Your task to perform on an android device: Go to Wikipedia Image 0: 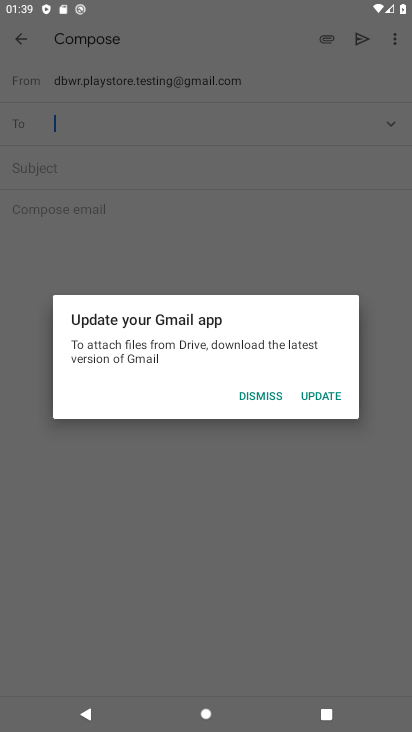
Step 0: press home button
Your task to perform on an android device: Go to Wikipedia Image 1: 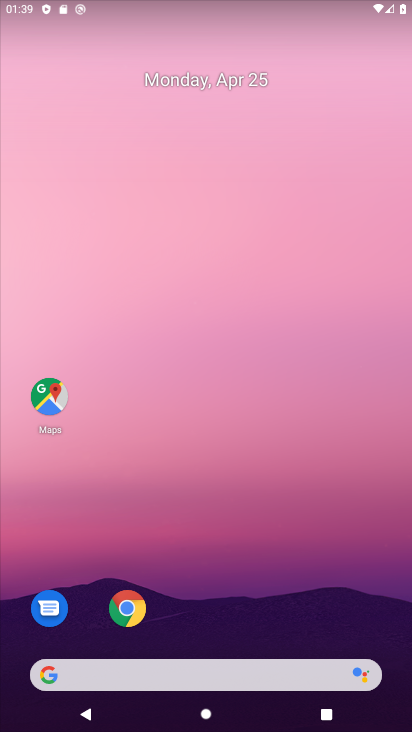
Step 1: click (128, 607)
Your task to perform on an android device: Go to Wikipedia Image 2: 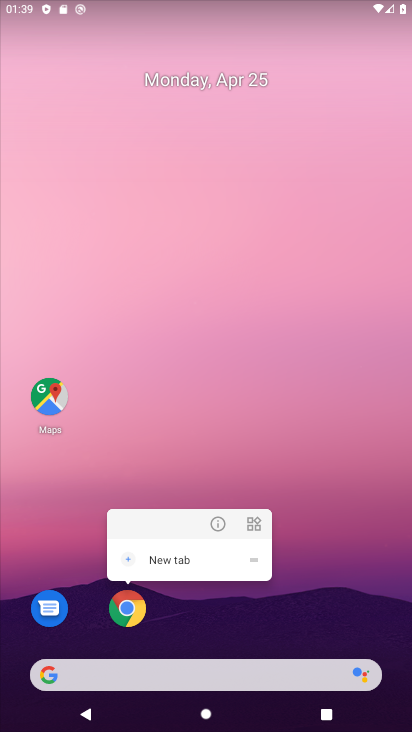
Step 2: click (128, 607)
Your task to perform on an android device: Go to Wikipedia Image 3: 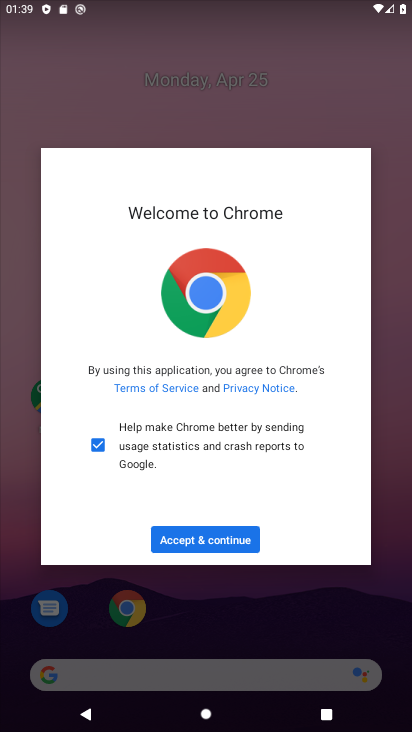
Step 3: click (188, 545)
Your task to perform on an android device: Go to Wikipedia Image 4: 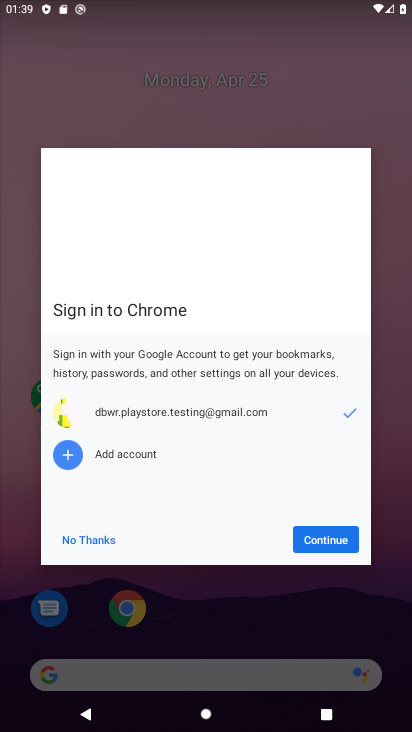
Step 4: click (320, 540)
Your task to perform on an android device: Go to Wikipedia Image 5: 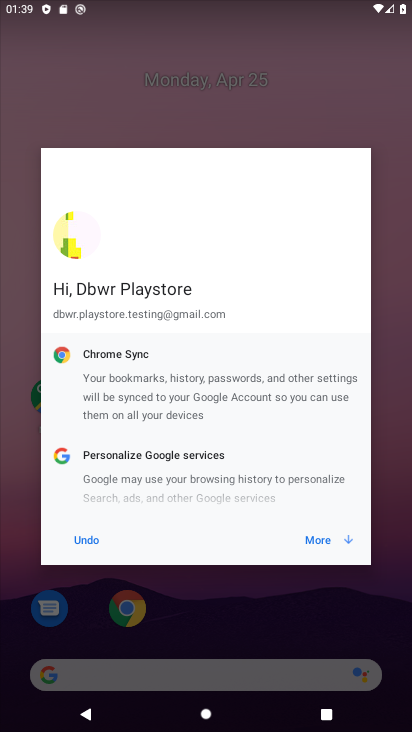
Step 5: click (320, 540)
Your task to perform on an android device: Go to Wikipedia Image 6: 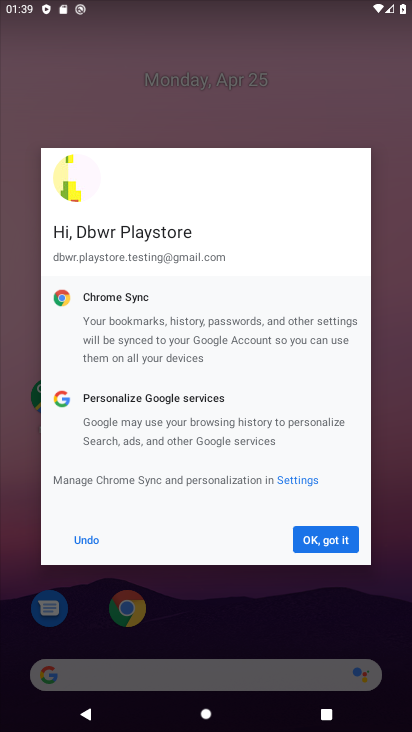
Step 6: click (320, 540)
Your task to perform on an android device: Go to Wikipedia Image 7: 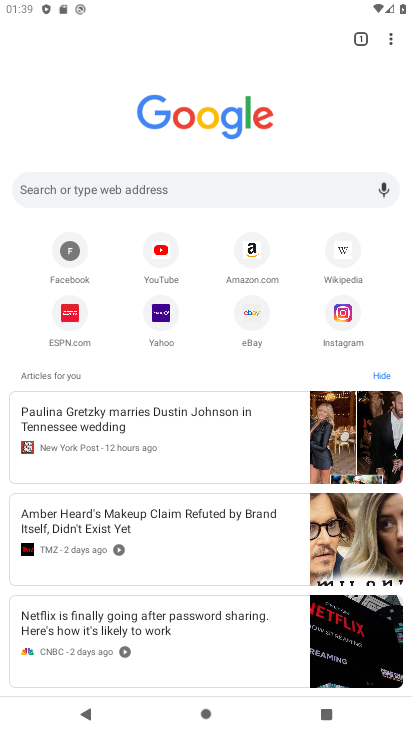
Step 7: click (346, 265)
Your task to perform on an android device: Go to Wikipedia Image 8: 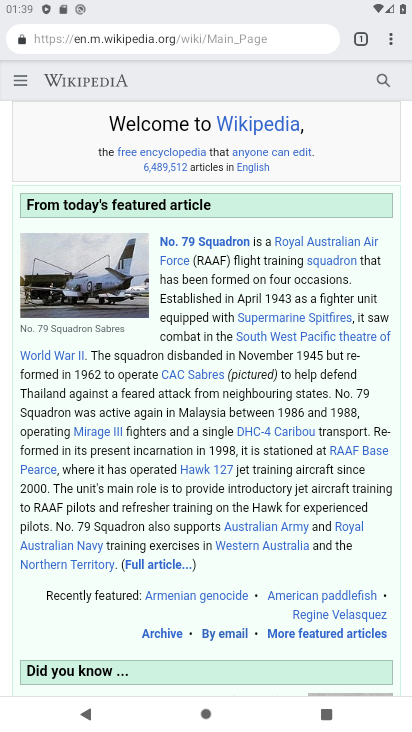
Step 8: task complete